Your task to perform on an android device: Show me recent news Image 0: 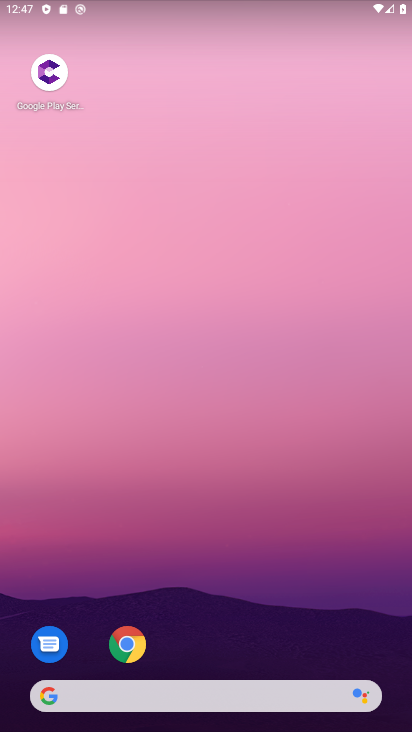
Step 0: drag from (246, 550) to (291, 7)
Your task to perform on an android device: Show me recent news Image 1: 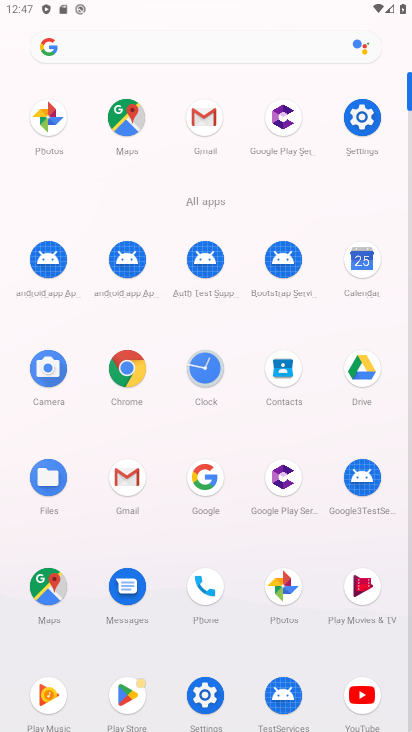
Step 1: click (125, 367)
Your task to perform on an android device: Show me recent news Image 2: 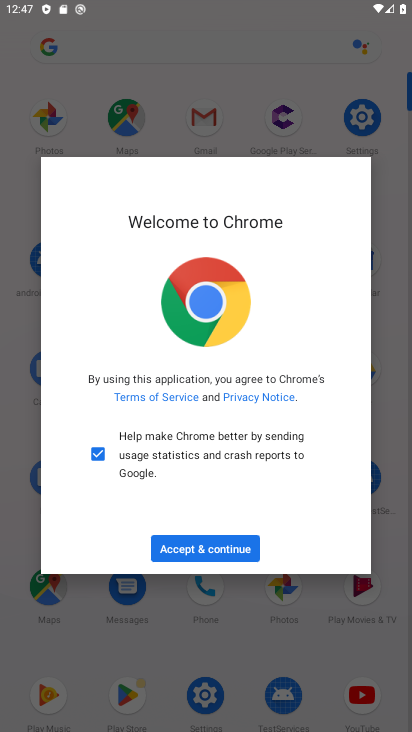
Step 2: click (221, 550)
Your task to perform on an android device: Show me recent news Image 3: 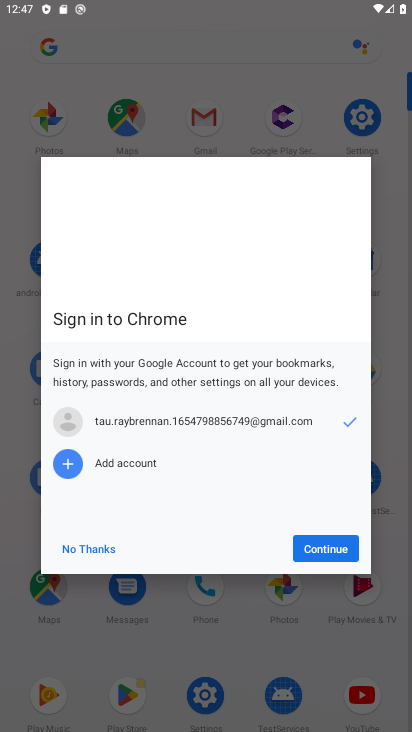
Step 3: click (323, 547)
Your task to perform on an android device: Show me recent news Image 4: 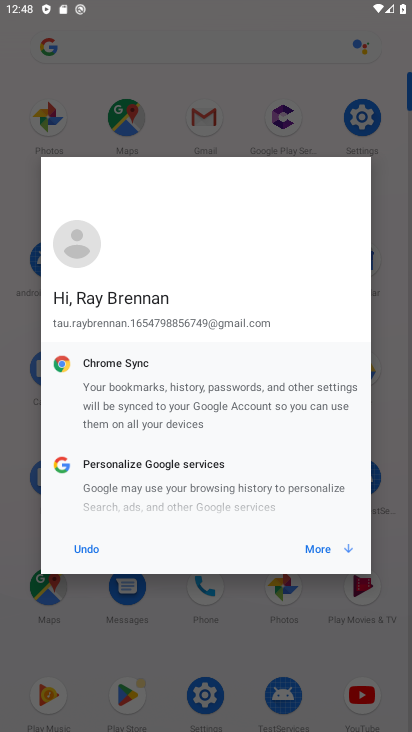
Step 4: click (337, 552)
Your task to perform on an android device: Show me recent news Image 5: 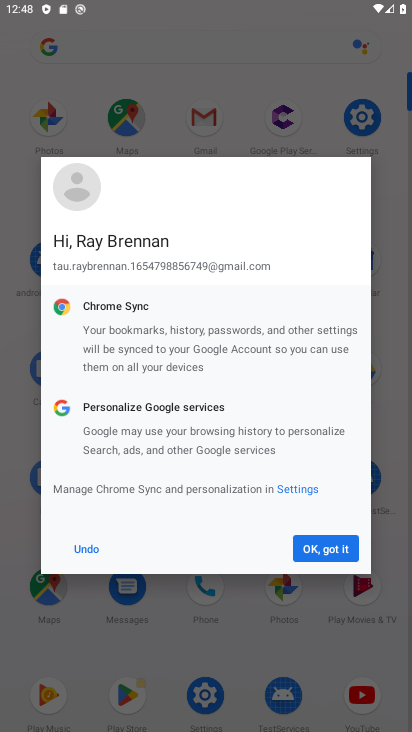
Step 5: click (337, 552)
Your task to perform on an android device: Show me recent news Image 6: 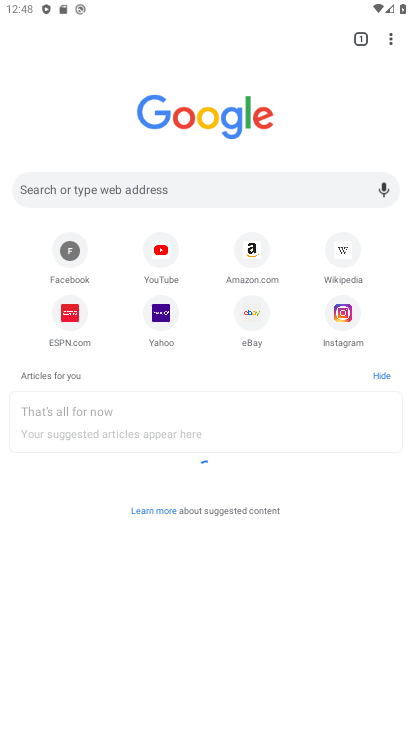
Step 6: click (248, 185)
Your task to perform on an android device: Show me recent news Image 7: 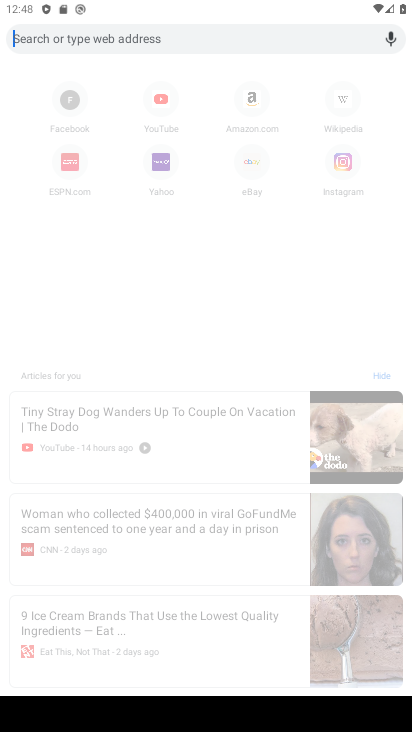
Step 7: type "news"
Your task to perform on an android device: Show me recent news Image 8: 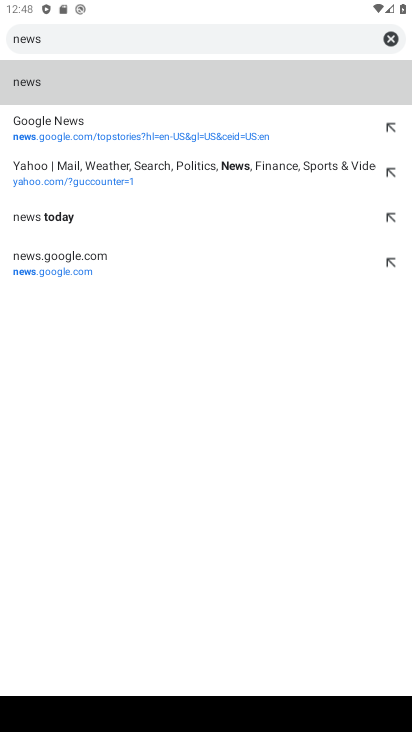
Step 8: click (56, 77)
Your task to perform on an android device: Show me recent news Image 9: 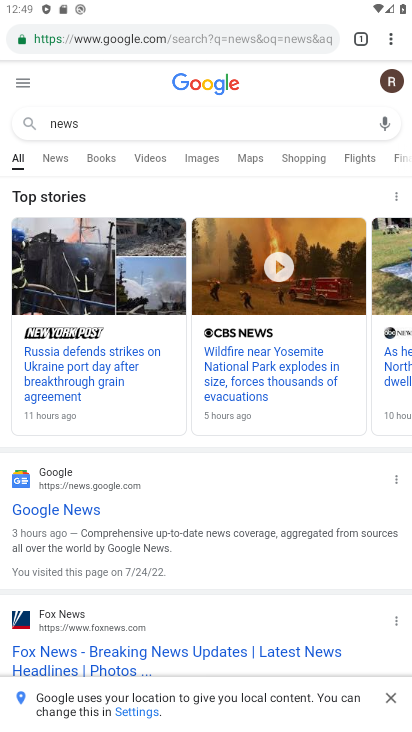
Step 9: click (61, 508)
Your task to perform on an android device: Show me recent news Image 10: 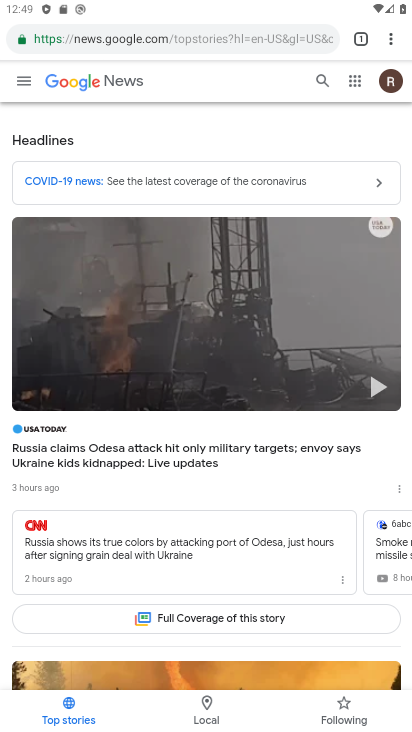
Step 10: task complete